Your task to perform on an android device: Open Reddit.com Image 0: 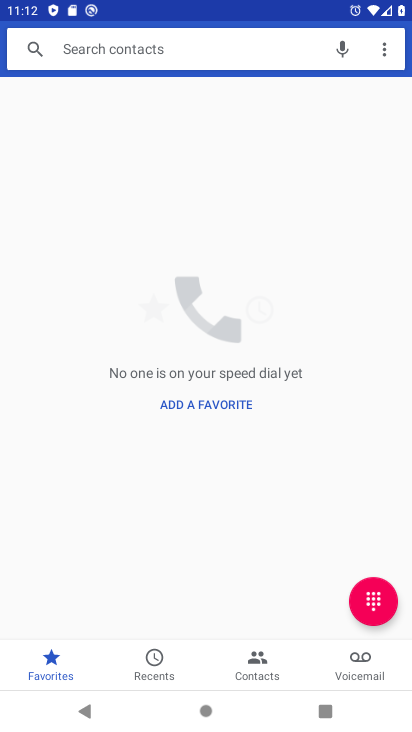
Step 0: press home button
Your task to perform on an android device: Open Reddit.com Image 1: 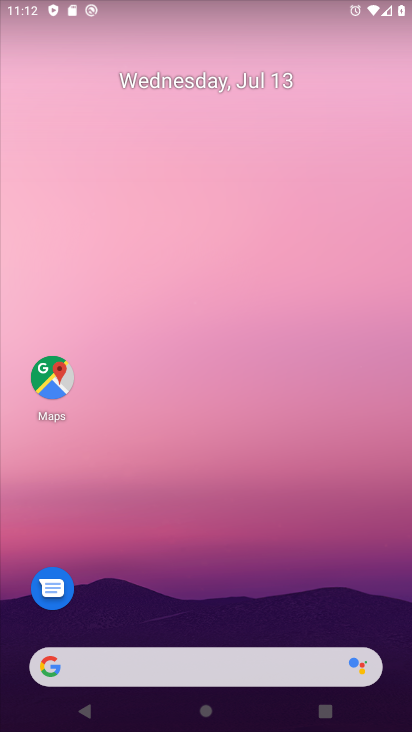
Step 1: click (267, 657)
Your task to perform on an android device: Open Reddit.com Image 2: 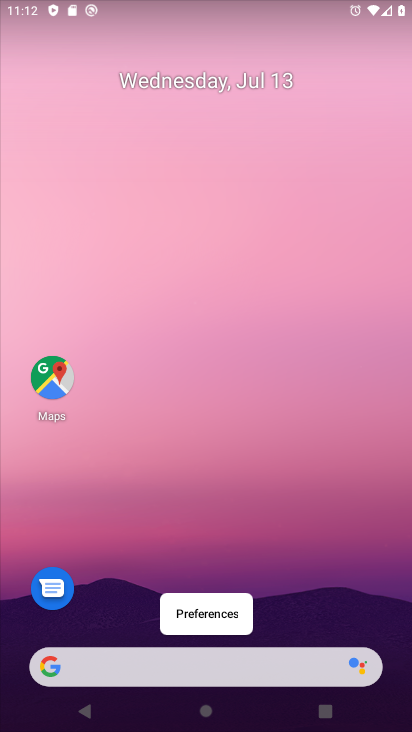
Step 2: click (297, 660)
Your task to perform on an android device: Open Reddit.com Image 3: 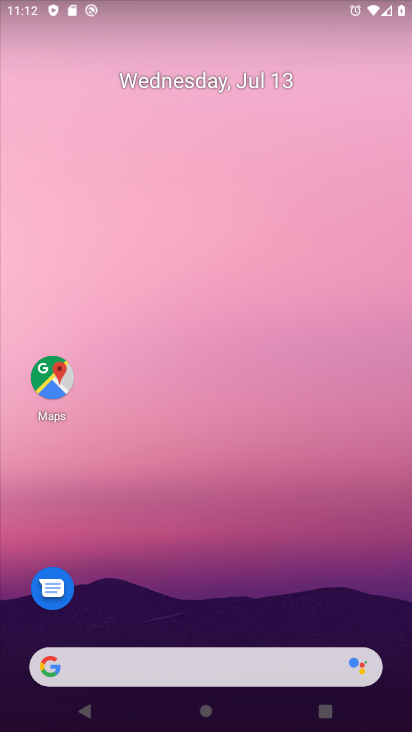
Step 3: click (297, 660)
Your task to perform on an android device: Open Reddit.com Image 4: 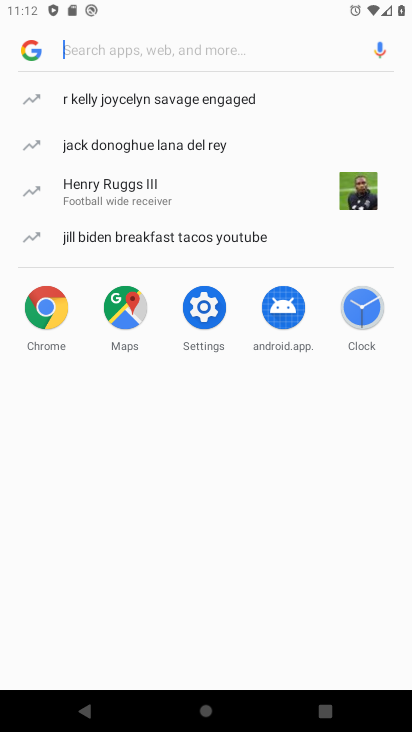
Step 4: type "reddit.com"
Your task to perform on an android device: Open Reddit.com Image 5: 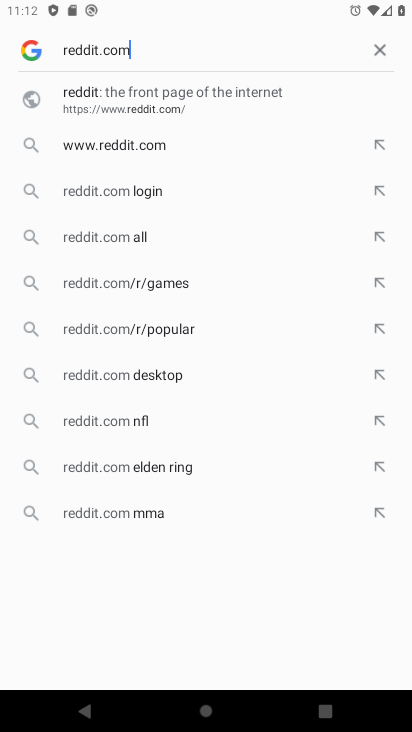
Step 5: click (227, 104)
Your task to perform on an android device: Open Reddit.com Image 6: 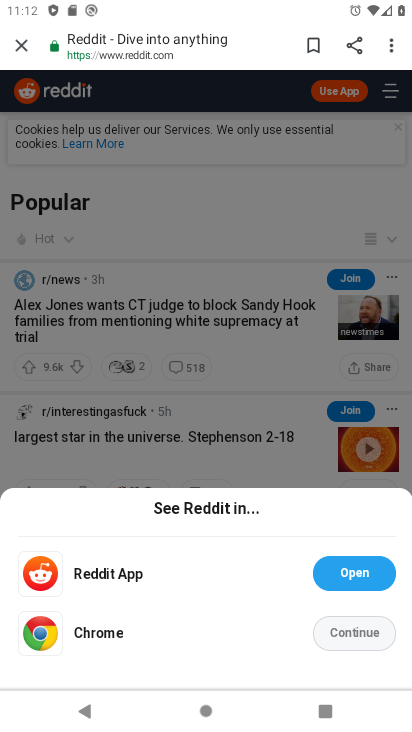
Step 6: task complete